Your task to perform on an android device: Show me popular videos on Youtube Image 0: 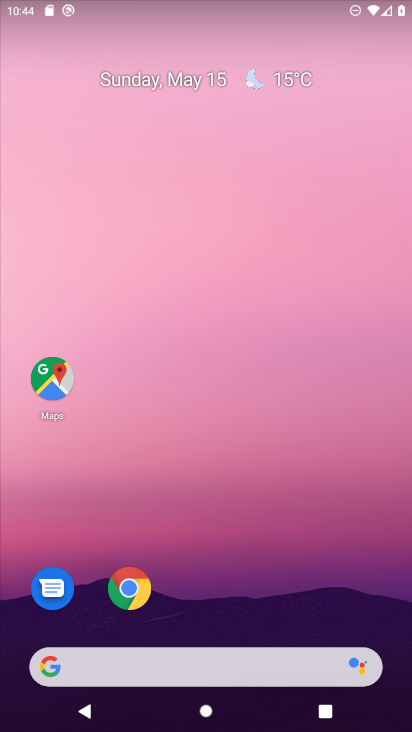
Step 0: drag from (208, 628) to (272, 8)
Your task to perform on an android device: Show me popular videos on Youtube Image 1: 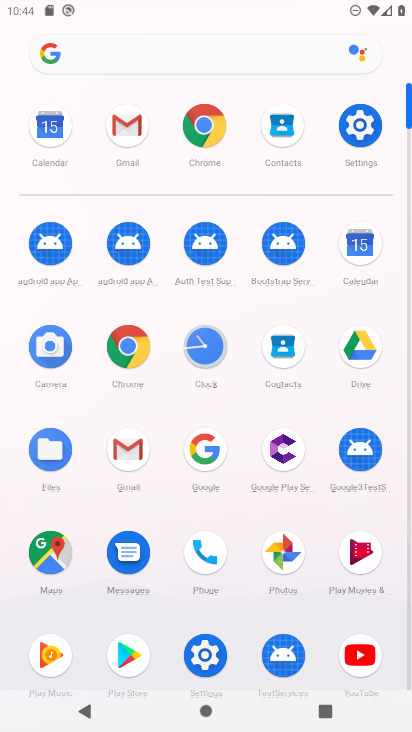
Step 1: click (367, 660)
Your task to perform on an android device: Show me popular videos on Youtube Image 2: 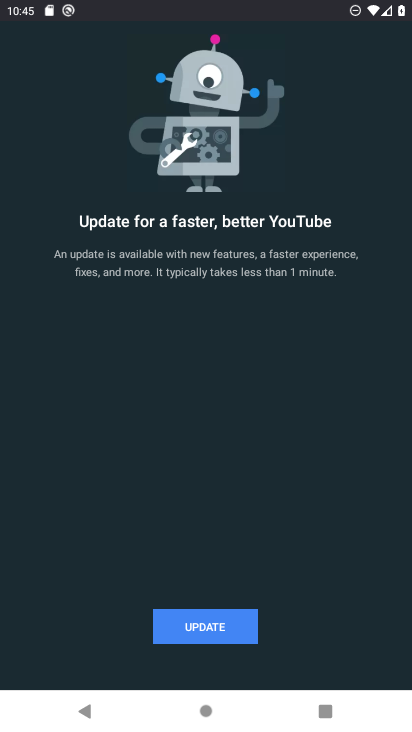
Step 2: click (197, 621)
Your task to perform on an android device: Show me popular videos on Youtube Image 3: 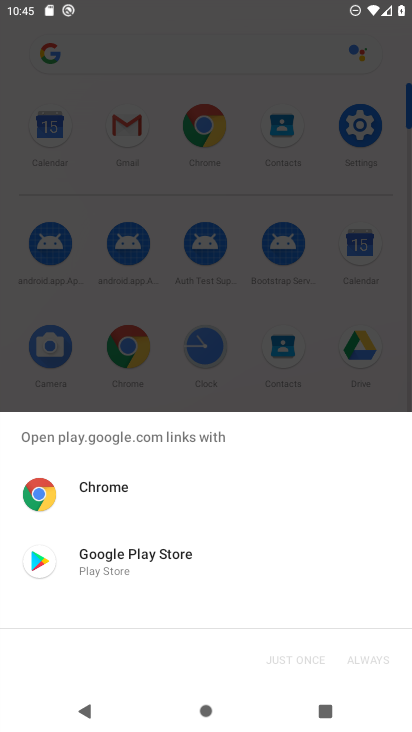
Step 3: click (98, 570)
Your task to perform on an android device: Show me popular videos on Youtube Image 4: 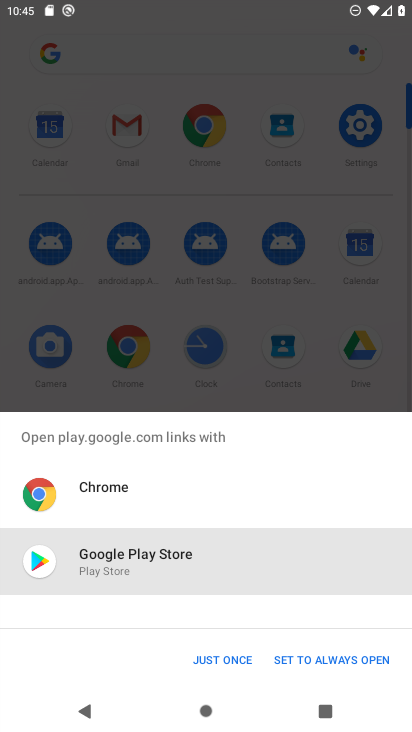
Step 4: click (212, 660)
Your task to perform on an android device: Show me popular videos on Youtube Image 5: 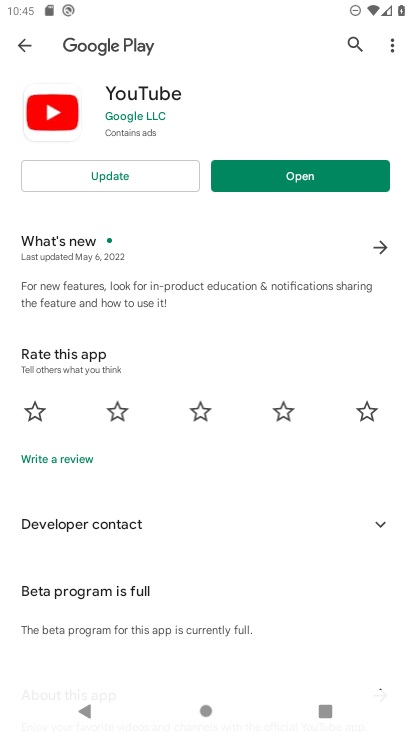
Step 5: click (155, 183)
Your task to perform on an android device: Show me popular videos on Youtube Image 6: 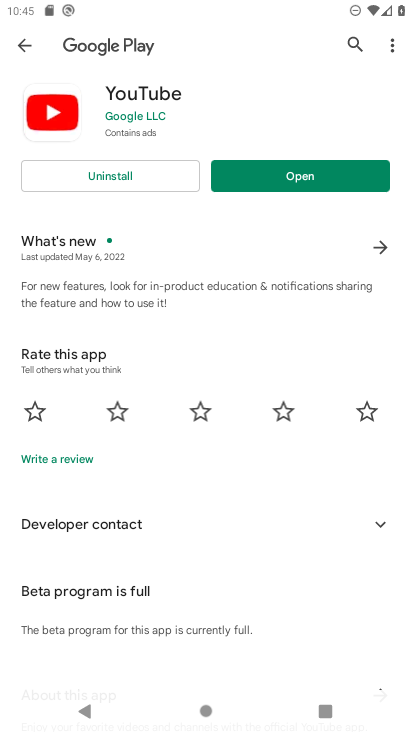
Step 6: click (277, 183)
Your task to perform on an android device: Show me popular videos on Youtube Image 7: 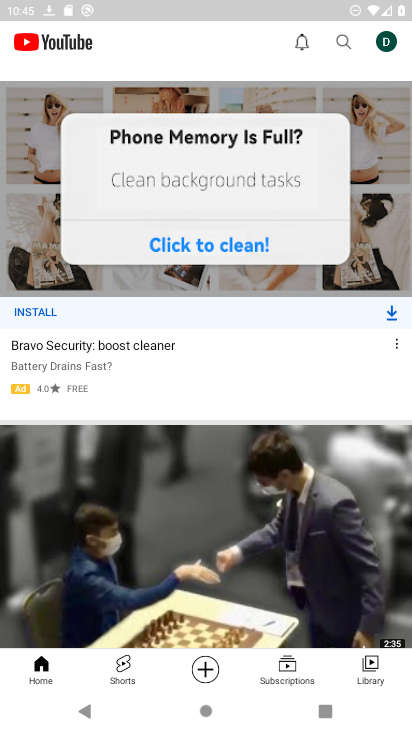
Step 7: drag from (184, 420) to (181, 515)
Your task to perform on an android device: Show me popular videos on Youtube Image 8: 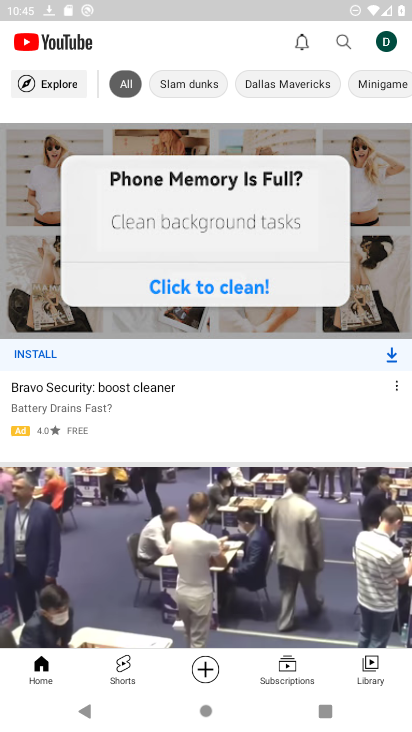
Step 8: click (49, 81)
Your task to perform on an android device: Show me popular videos on Youtube Image 9: 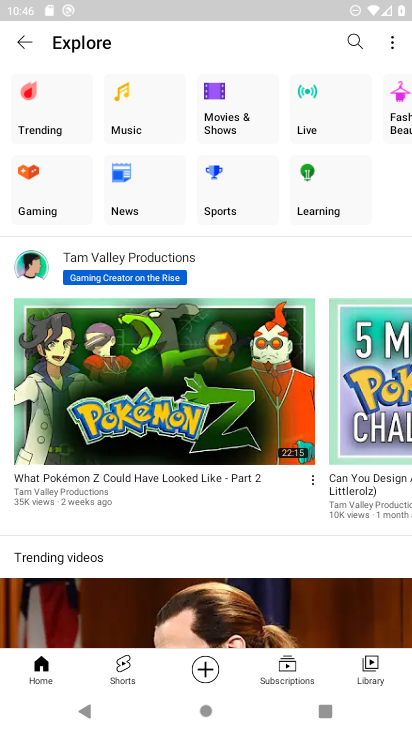
Step 9: click (43, 104)
Your task to perform on an android device: Show me popular videos on Youtube Image 10: 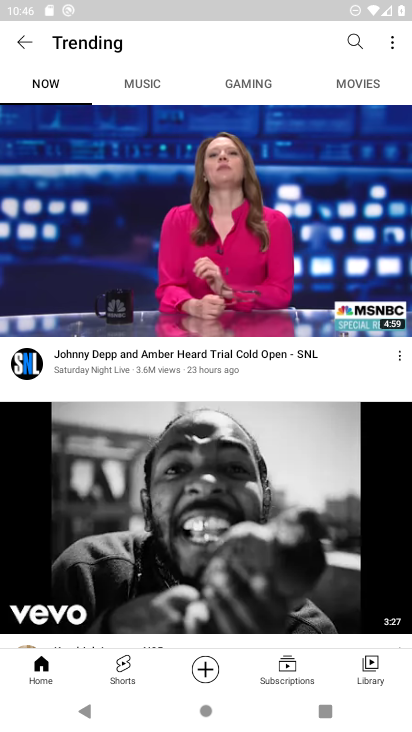
Step 10: task complete